Your task to perform on an android device: add a contact Image 0: 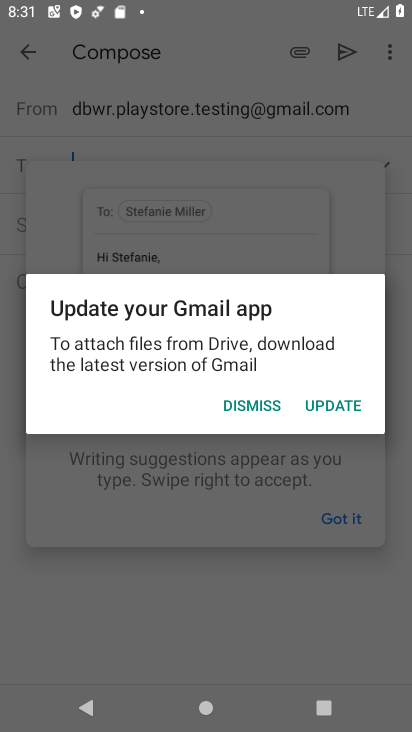
Step 0: press home button
Your task to perform on an android device: add a contact Image 1: 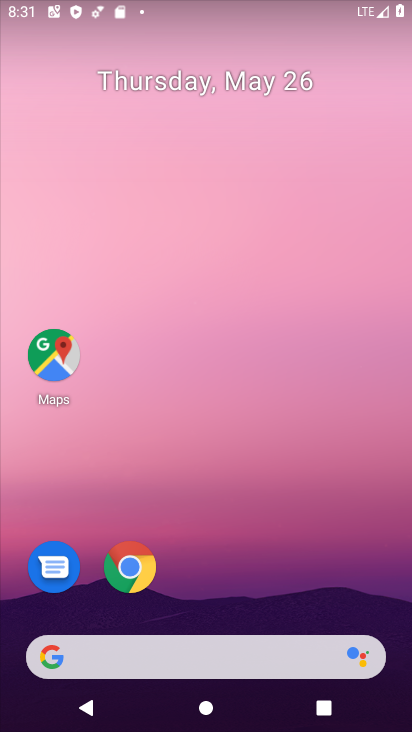
Step 1: drag from (229, 716) to (283, 157)
Your task to perform on an android device: add a contact Image 2: 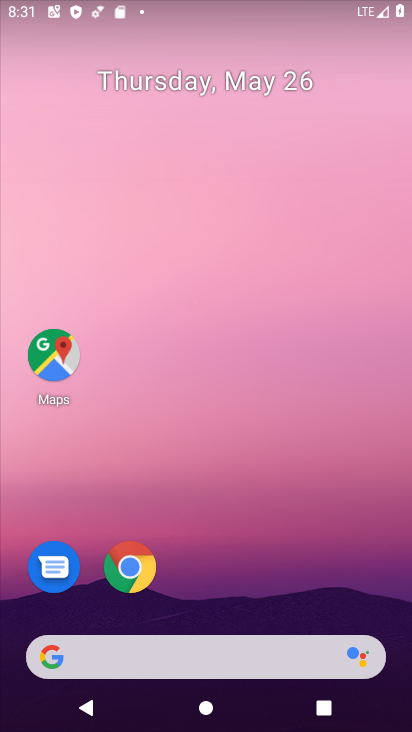
Step 2: drag from (263, 506) to (352, 171)
Your task to perform on an android device: add a contact Image 3: 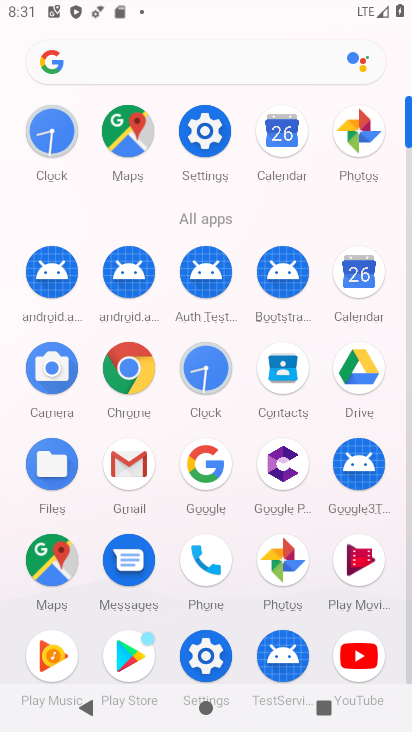
Step 3: click (280, 368)
Your task to perform on an android device: add a contact Image 4: 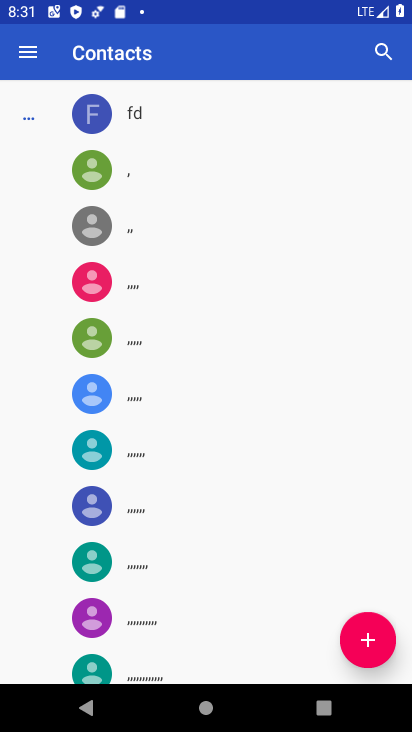
Step 4: click (369, 644)
Your task to perform on an android device: add a contact Image 5: 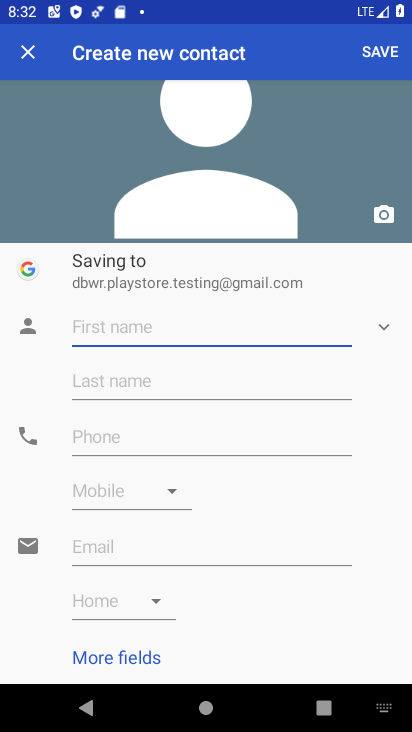
Step 5: type "hjvvjhhj"
Your task to perform on an android device: add a contact Image 6: 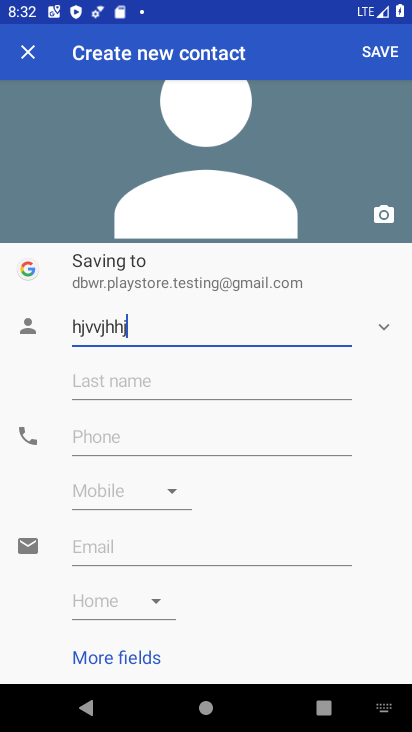
Step 6: click (231, 437)
Your task to perform on an android device: add a contact Image 7: 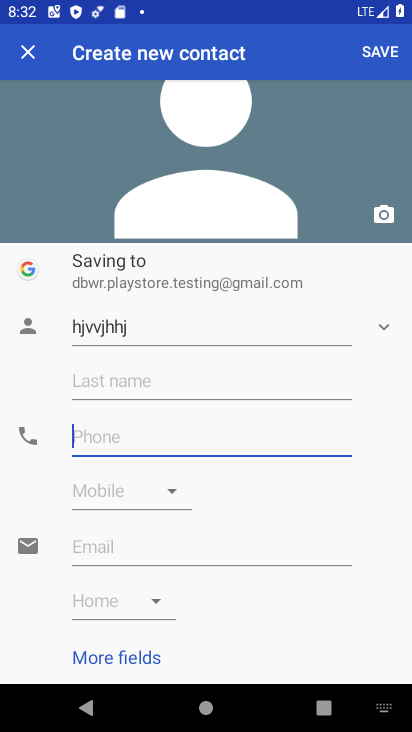
Step 7: type "88989"
Your task to perform on an android device: add a contact Image 8: 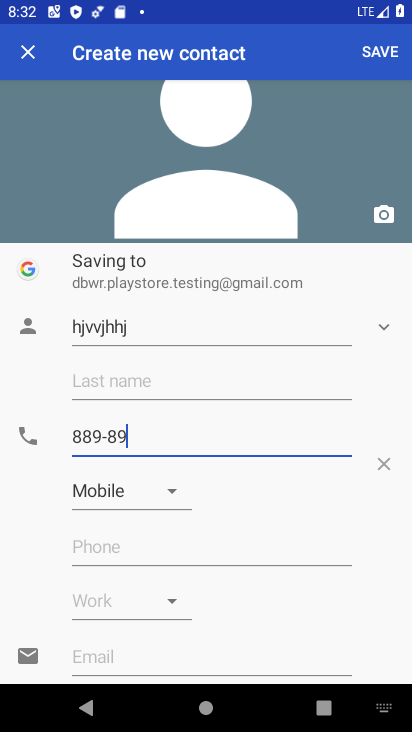
Step 8: click (399, 54)
Your task to perform on an android device: add a contact Image 9: 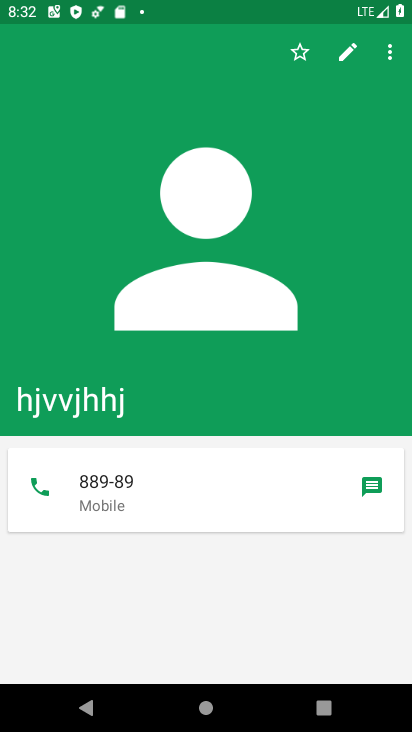
Step 9: task complete